Your task to perform on an android device: open app "Chime – Mobile Banking" (install if not already installed) Image 0: 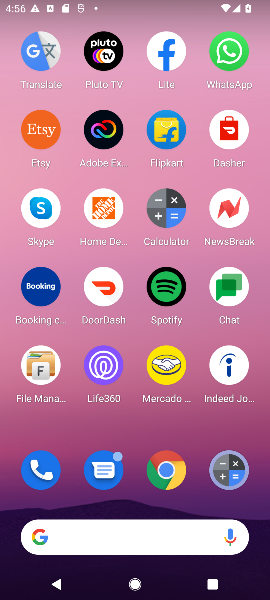
Step 0: drag from (137, 68) to (144, 473)
Your task to perform on an android device: open app "Chime – Mobile Banking" (install if not already installed) Image 1: 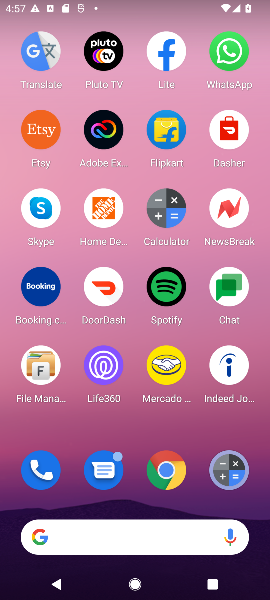
Step 1: drag from (135, 497) to (148, 51)
Your task to perform on an android device: open app "Chime – Mobile Banking" (install if not already installed) Image 2: 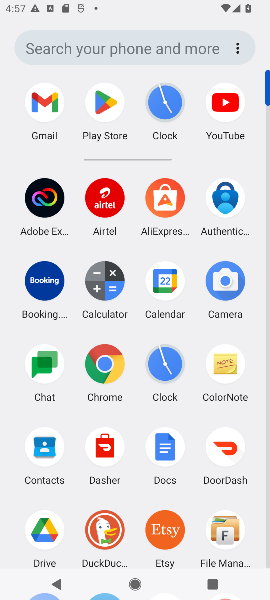
Step 2: click (106, 94)
Your task to perform on an android device: open app "Chime – Mobile Banking" (install if not already installed) Image 3: 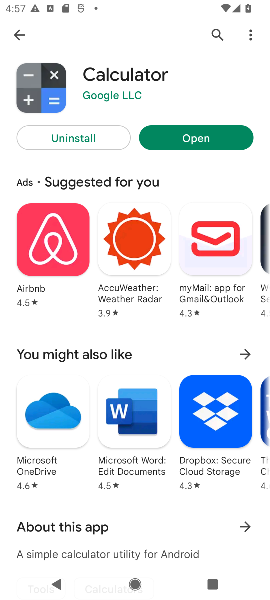
Step 3: click (21, 39)
Your task to perform on an android device: open app "Chime – Mobile Banking" (install if not already installed) Image 4: 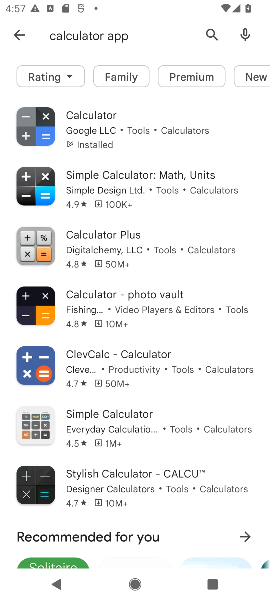
Step 4: click (20, 35)
Your task to perform on an android device: open app "Chime – Mobile Banking" (install if not already installed) Image 5: 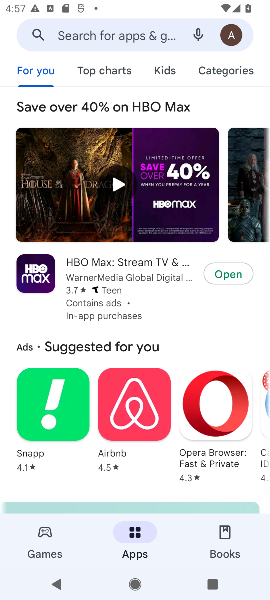
Step 5: click (115, 33)
Your task to perform on an android device: open app "Chime – Mobile Banking" (install if not already installed) Image 6: 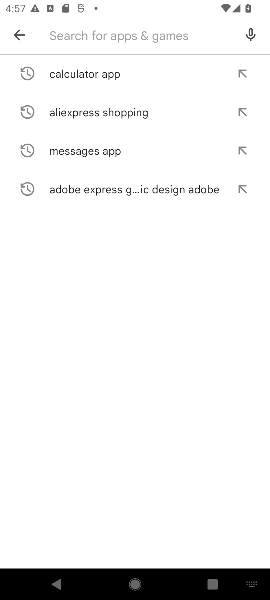
Step 6: type "Chime – Mobile Banking "
Your task to perform on an android device: open app "Chime – Mobile Banking" (install if not already installed) Image 7: 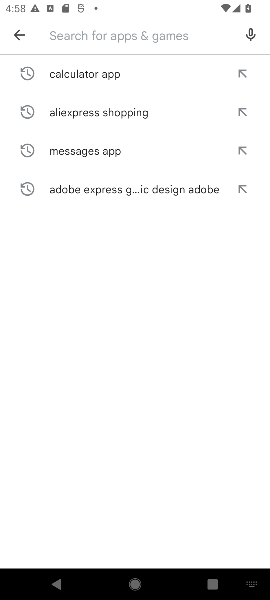
Step 7: click (146, 27)
Your task to perform on an android device: open app "Chime – Mobile Banking" (install if not already installed) Image 8: 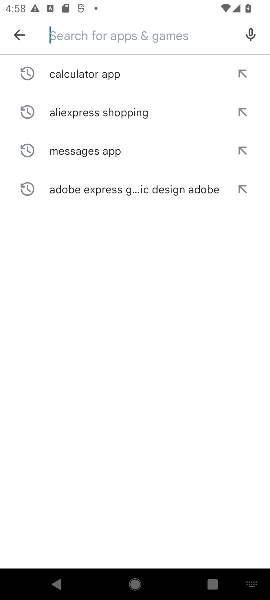
Step 8: type "Chime "
Your task to perform on an android device: open app "Chime – Mobile Banking" (install if not already installed) Image 9: 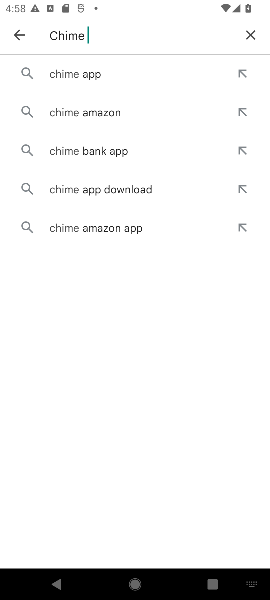
Step 9: click (113, 69)
Your task to perform on an android device: open app "Chime – Mobile Banking" (install if not already installed) Image 10: 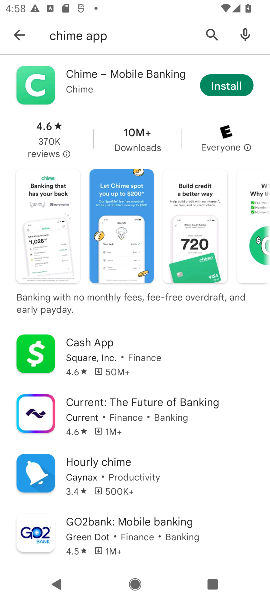
Step 10: click (220, 82)
Your task to perform on an android device: open app "Chime – Mobile Banking" (install if not already installed) Image 11: 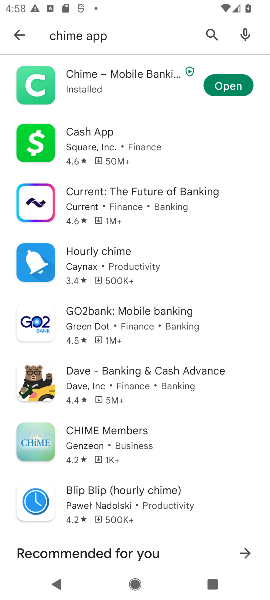
Step 11: click (223, 79)
Your task to perform on an android device: open app "Chime – Mobile Banking" (install if not already installed) Image 12: 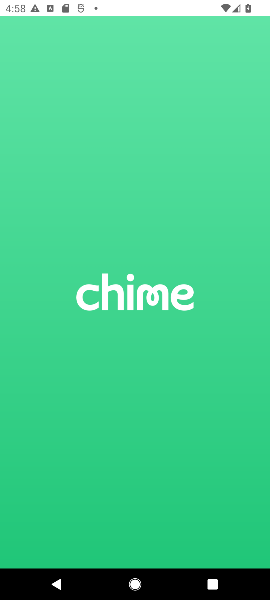
Step 12: task complete